Your task to perform on an android device: Play the last video I watched on Youtube Image 0: 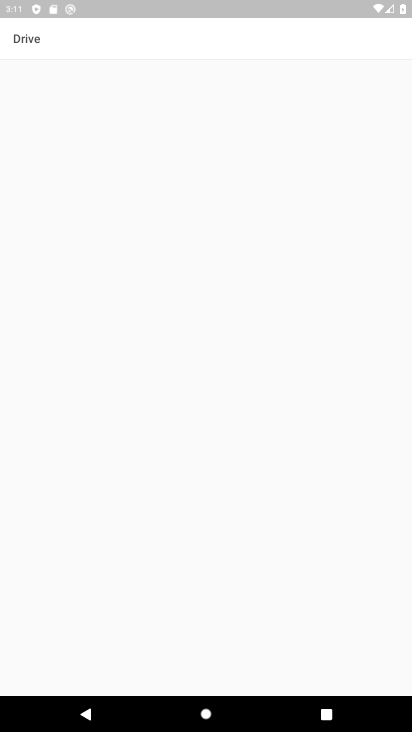
Step 0: press home button
Your task to perform on an android device: Play the last video I watched on Youtube Image 1: 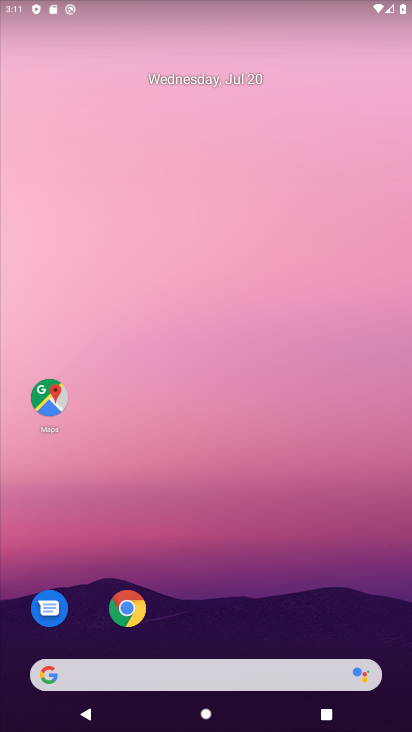
Step 1: drag from (389, 694) to (360, 19)
Your task to perform on an android device: Play the last video I watched on Youtube Image 2: 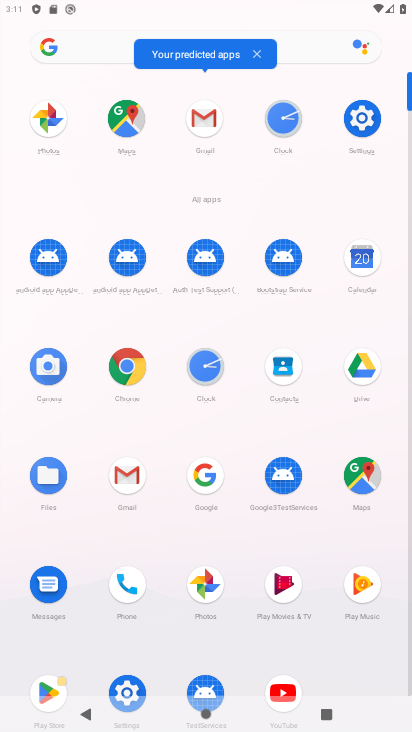
Step 2: click (282, 679)
Your task to perform on an android device: Play the last video I watched on Youtube Image 3: 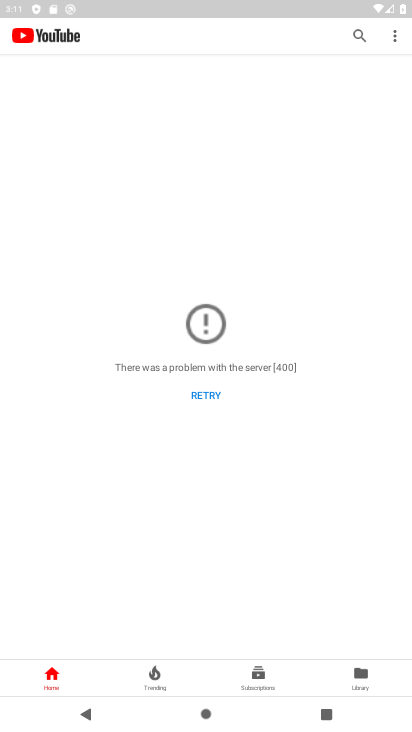
Step 3: click (357, 668)
Your task to perform on an android device: Play the last video I watched on Youtube Image 4: 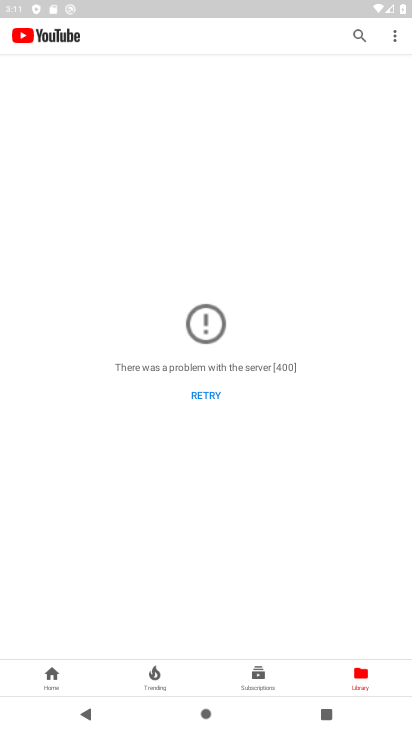
Step 4: task complete